Your task to perform on an android device: turn vacation reply on in the gmail app Image 0: 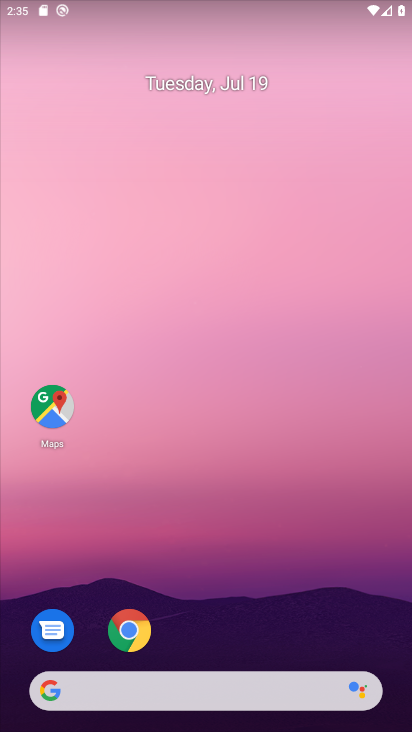
Step 0: drag from (241, 595) to (233, 102)
Your task to perform on an android device: turn vacation reply on in the gmail app Image 1: 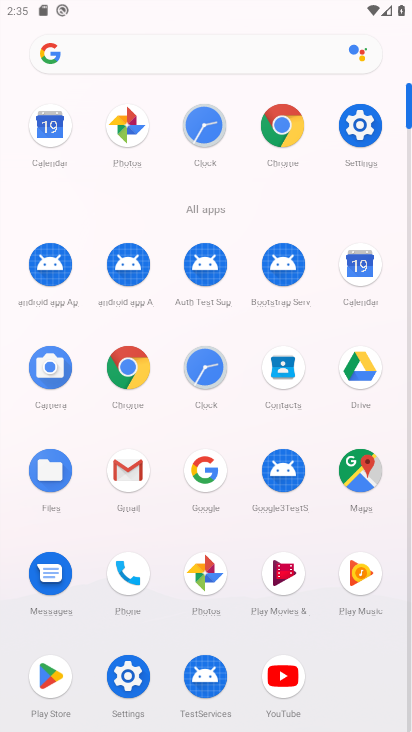
Step 1: click (120, 470)
Your task to perform on an android device: turn vacation reply on in the gmail app Image 2: 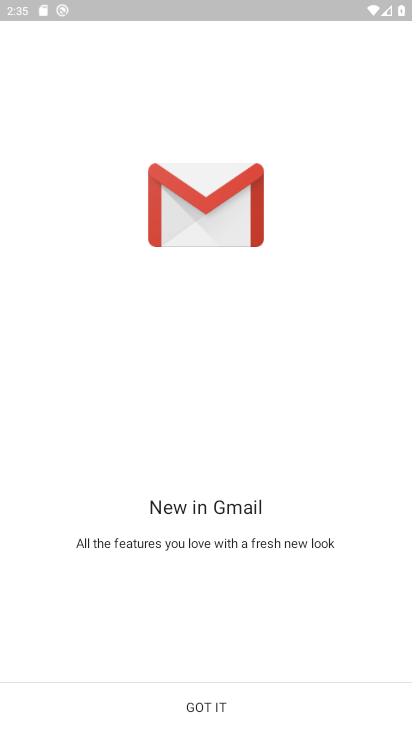
Step 2: click (213, 707)
Your task to perform on an android device: turn vacation reply on in the gmail app Image 3: 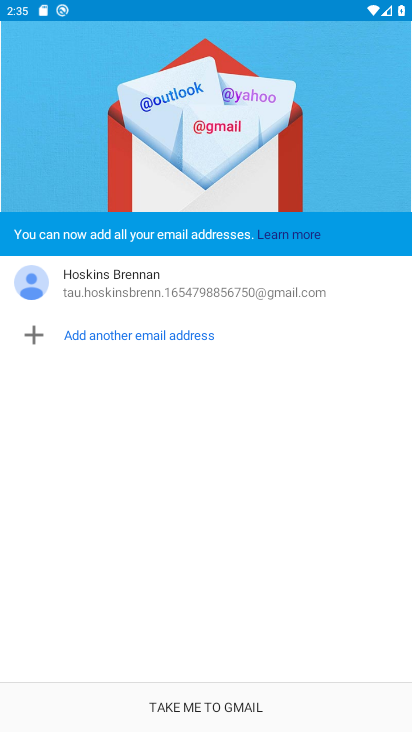
Step 3: click (213, 707)
Your task to perform on an android device: turn vacation reply on in the gmail app Image 4: 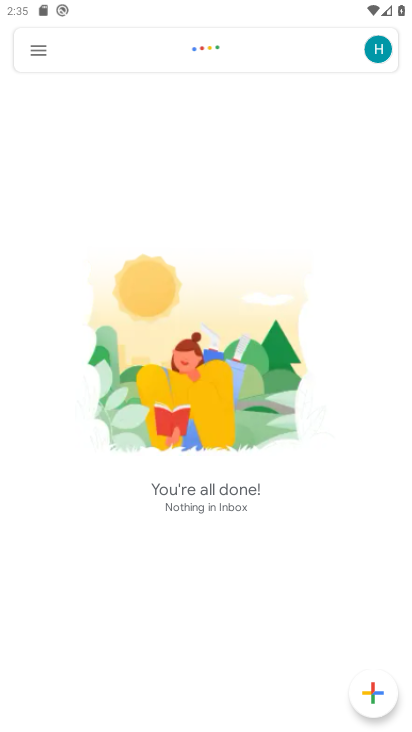
Step 4: click (35, 49)
Your task to perform on an android device: turn vacation reply on in the gmail app Image 5: 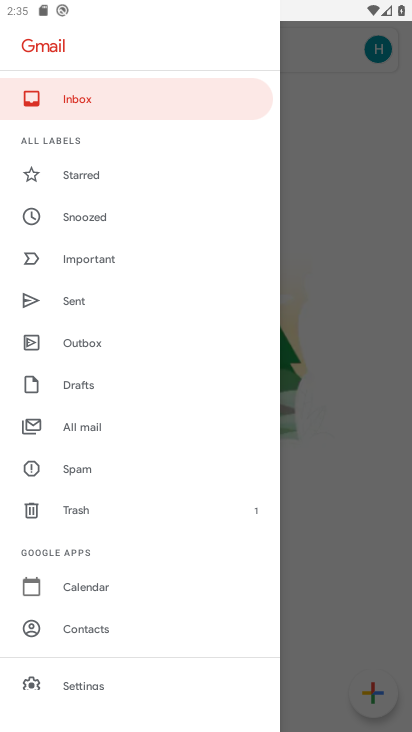
Step 5: drag from (138, 656) to (138, 305)
Your task to perform on an android device: turn vacation reply on in the gmail app Image 6: 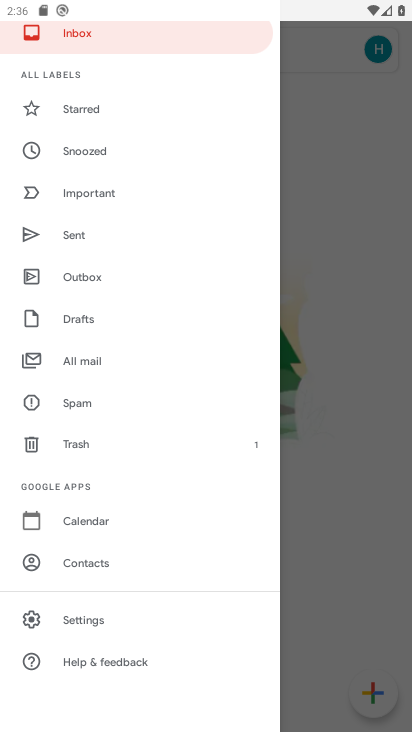
Step 6: click (91, 614)
Your task to perform on an android device: turn vacation reply on in the gmail app Image 7: 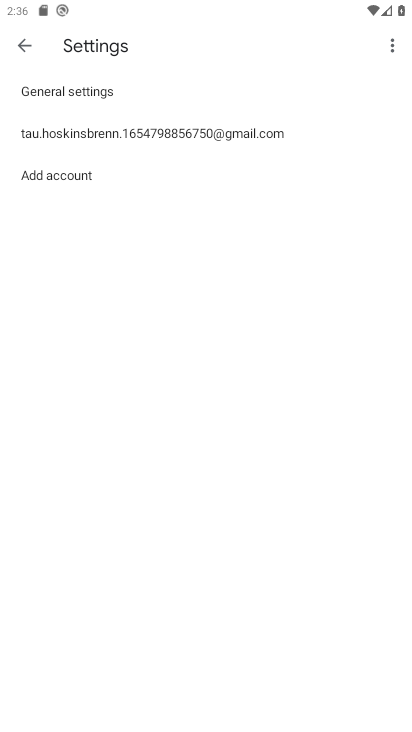
Step 7: click (78, 131)
Your task to perform on an android device: turn vacation reply on in the gmail app Image 8: 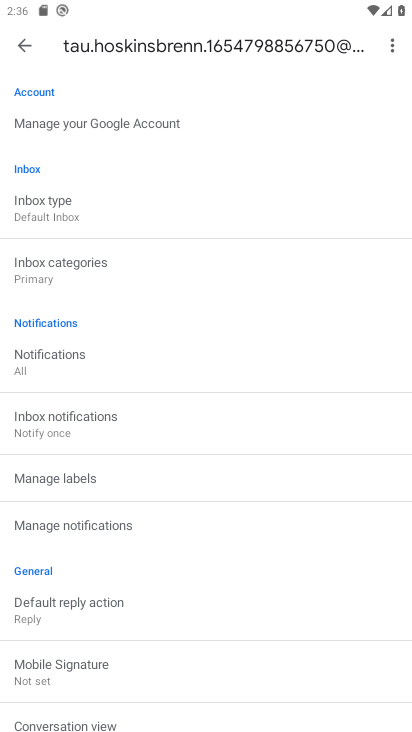
Step 8: drag from (233, 623) to (233, 248)
Your task to perform on an android device: turn vacation reply on in the gmail app Image 9: 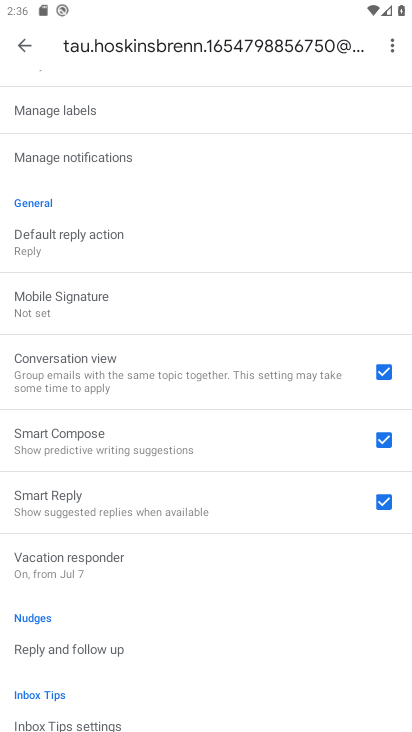
Step 9: click (91, 557)
Your task to perform on an android device: turn vacation reply on in the gmail app Image 10: 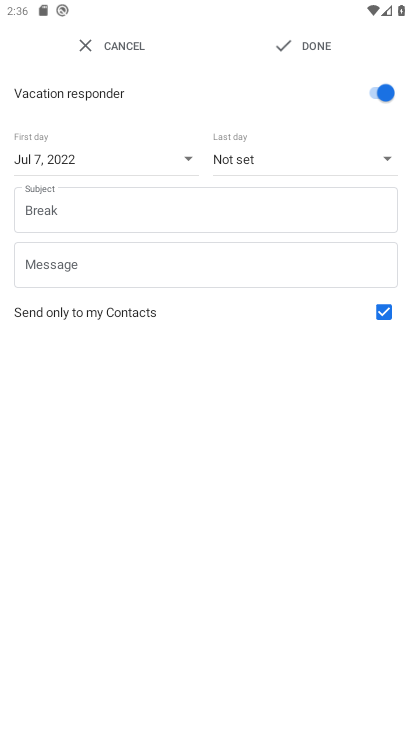
Step 10: click (304, 45)
Your task to perform on an android device: turn vacation reply on in the gmail app Image 11: 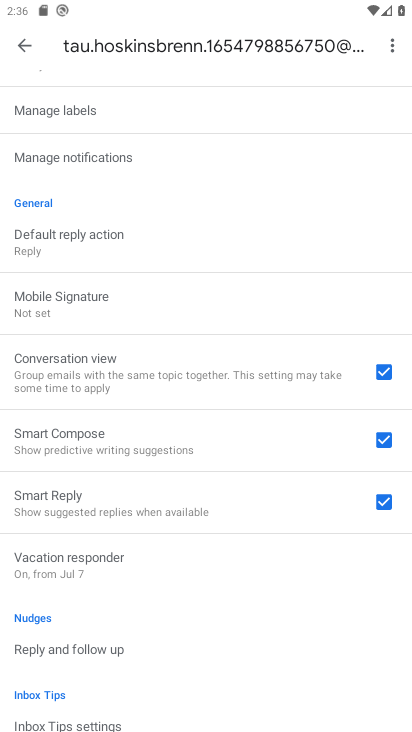
Step 11: task complete